Your task to perform on an android device: Go to display settings Image 0: 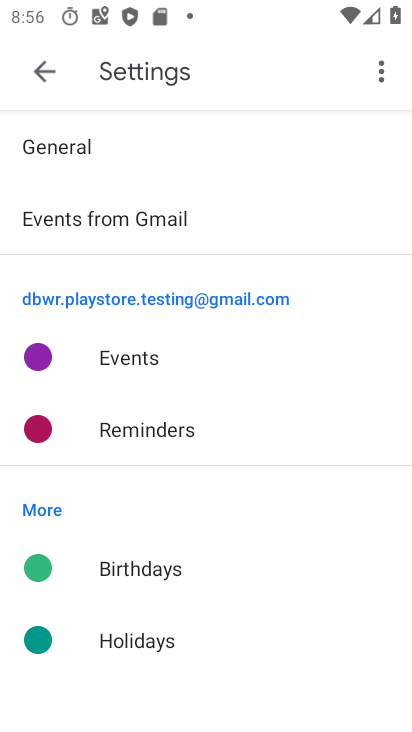
Step 0: press home button
Your task to perform on an android device: Go to display settings Image 1: 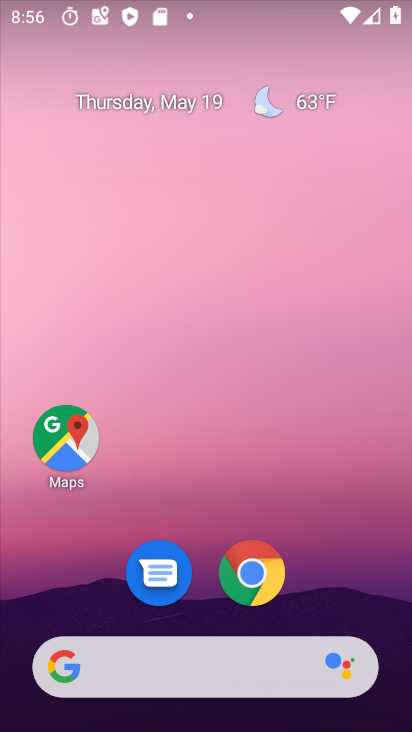
Step 1: drag from (356, 625) to (325, 5)
Your task to perform on an android device: Go to display settings Image 2: 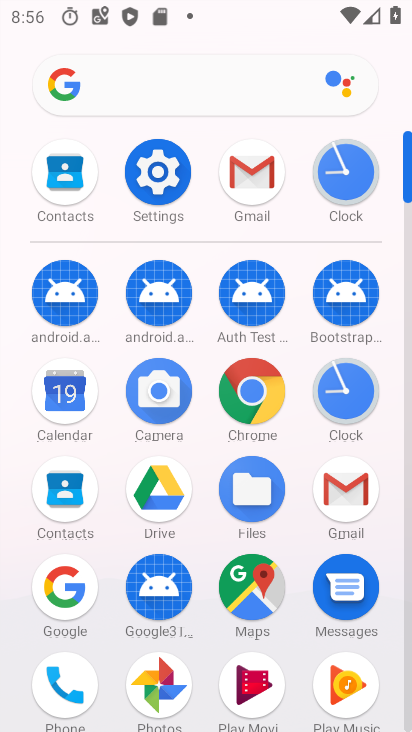
Step 2: click (166, 167)
Your task to perform on an android device: Go to display settings Image 3: 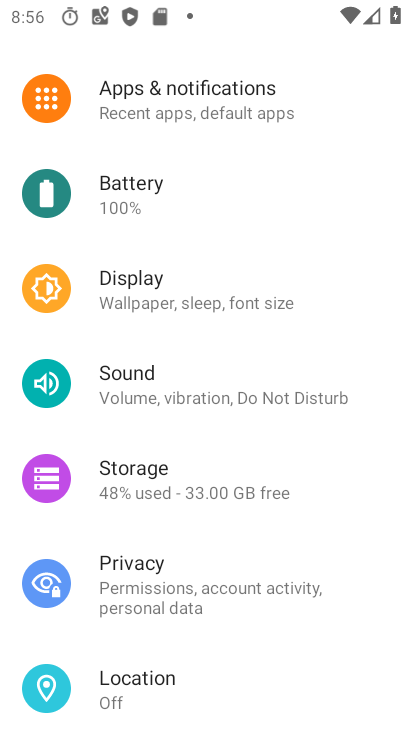
Step 3: click (133, 297)
Your task to perform on an android device: Go to display settings Image 4: 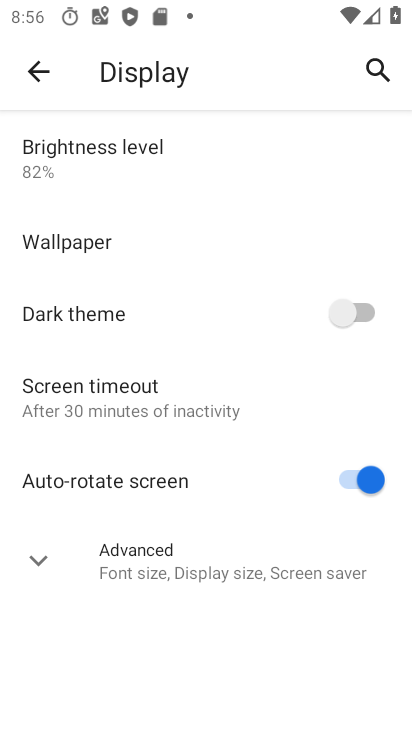
Step 4: task complete